Your task to perform on an android device: Go to eBay Image 0: 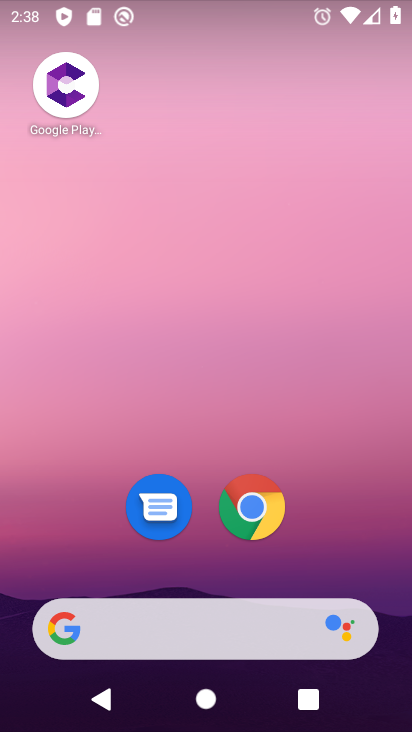
Step 0: click (261, 507)
Your task to perform on an android device: Go to eBay Image 1: 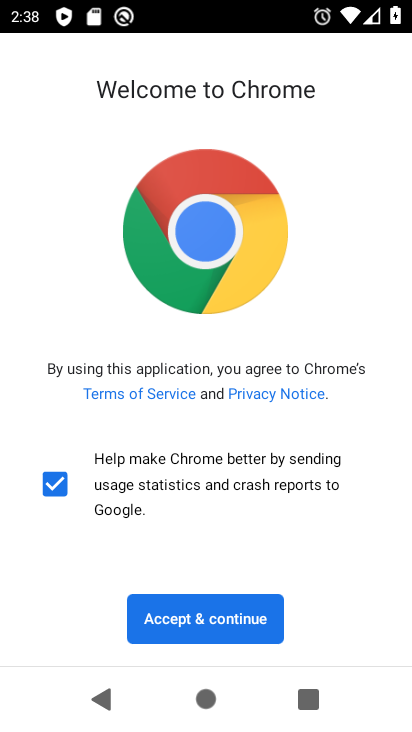
Step 1: click (214, 616)
Your task to perform on an android device: Go to eBay Image 2: 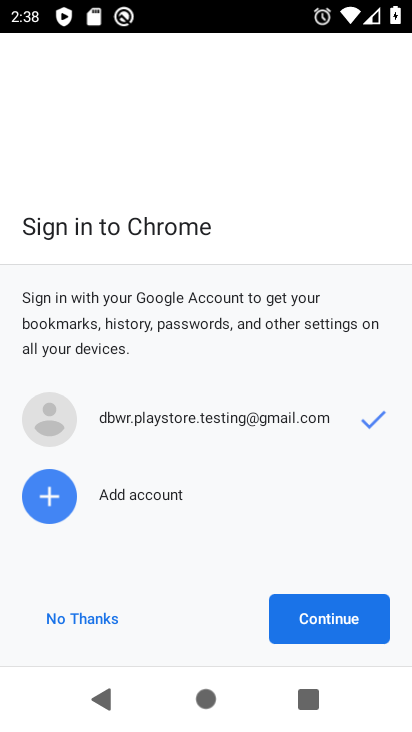
Step 2: click (364, 624)
Your task to perform on an android device: Go to eBay Image 3: 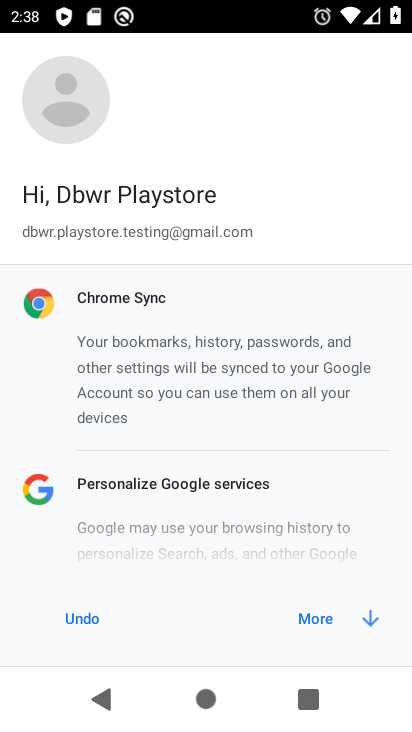
Step 3: click (335, 613)
Your task to perform on an android device: Go to eBay Image 4: 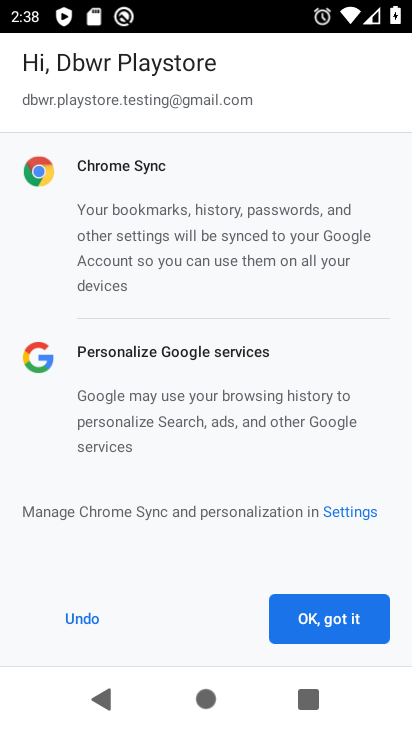
Step 4: click (342, 631)
Your task to perform on an android device: Go to eBay Image 5: 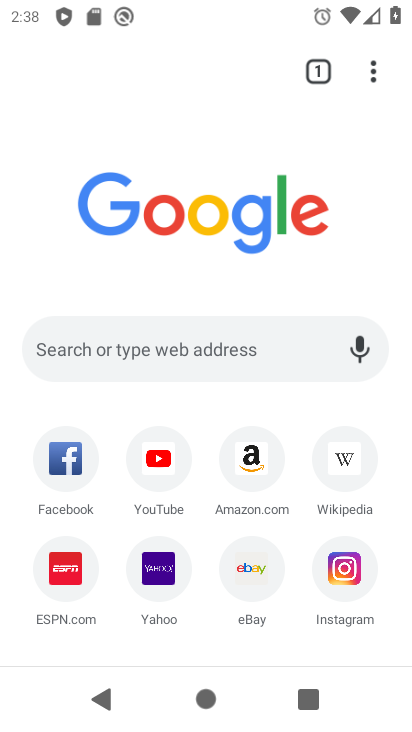
Step 5: click (256, 560)
Your task to perform on an android device: Go to eBay Image 6: 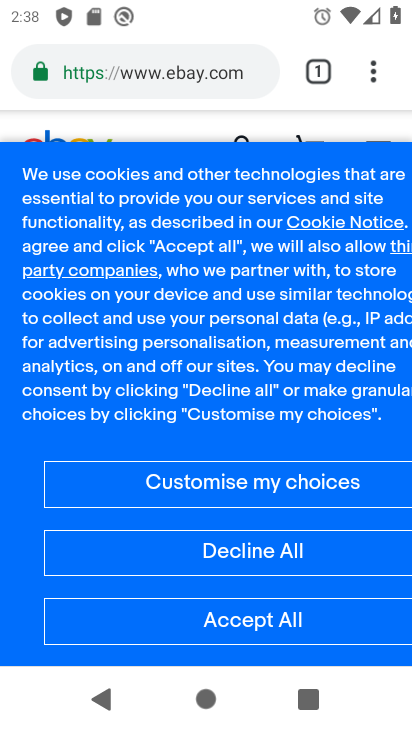
Step 6: task complete